Your task to perform on an android device: toggle data saver in the chrome app Image 0: 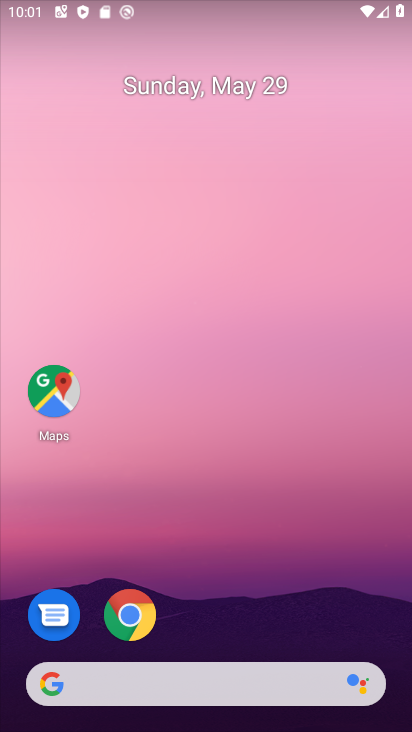
Step 0: click (131, 596)
Your task to perform on an android device: toggle data saver in the chrome app Image 1: 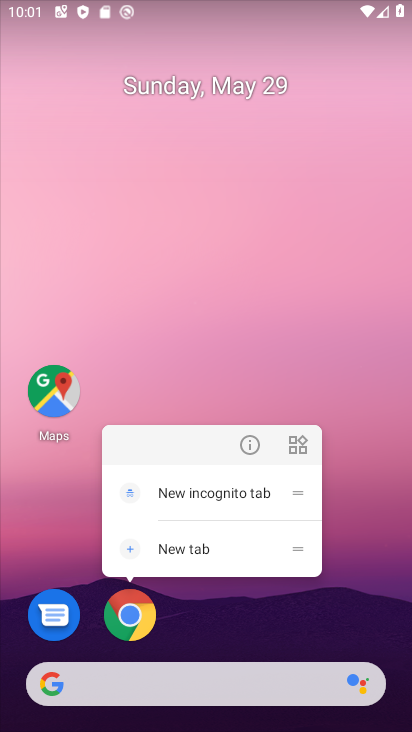
Step 1: click (133, 622)
Your task to perform on an android device: toggle data saver in the chrome app Image 2: 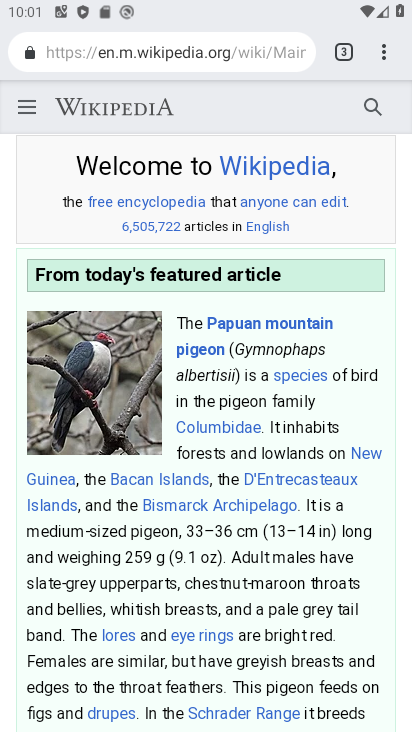
Step 2: click (383, 50)
Your task to perform on an android device: toggle data saver in the chrome app Image 3: 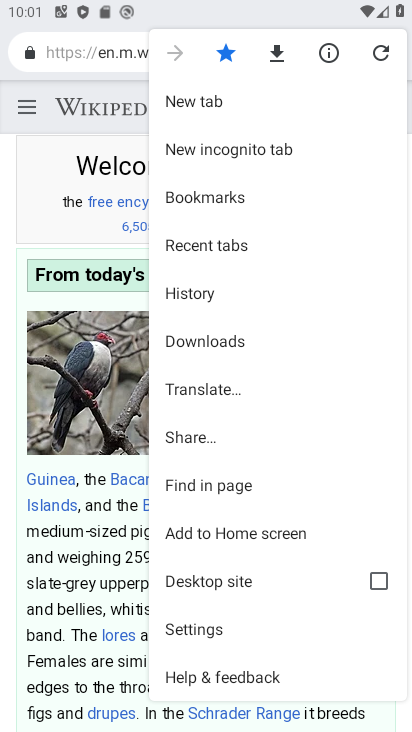
Step 3: click (204, 627)
Your task to perform on an android device: toggle data saver in the chrome app Image 4: 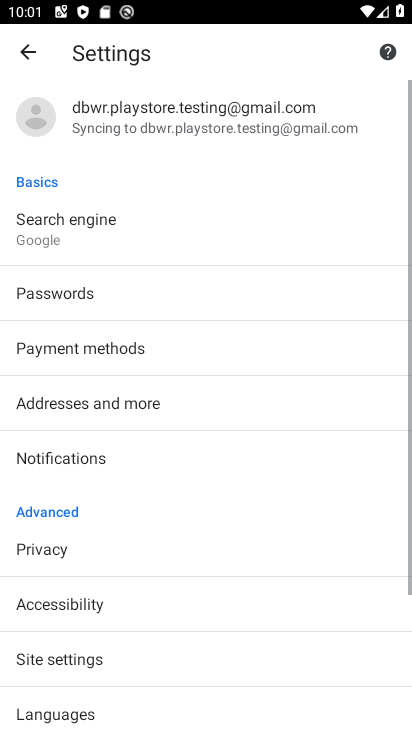
Step 4: drag from (204, 627) to (163, 8)
Your task to perform on an android device: toggle data saver in the chrome app Image 5: 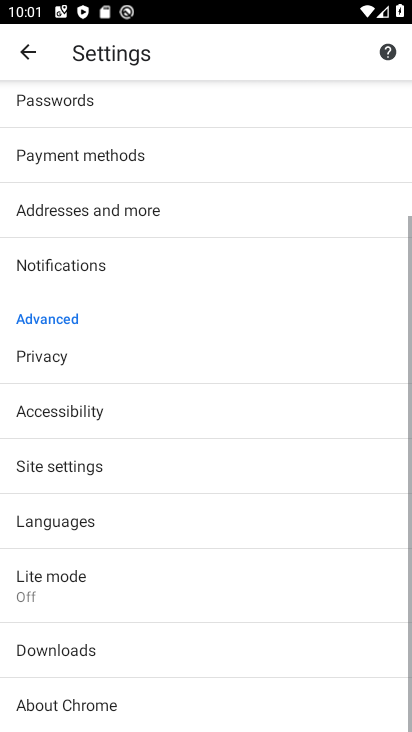
Step 5: click (30, 606)
Your task to perform on an android device: toggle data saver in the chrome app Image 6: 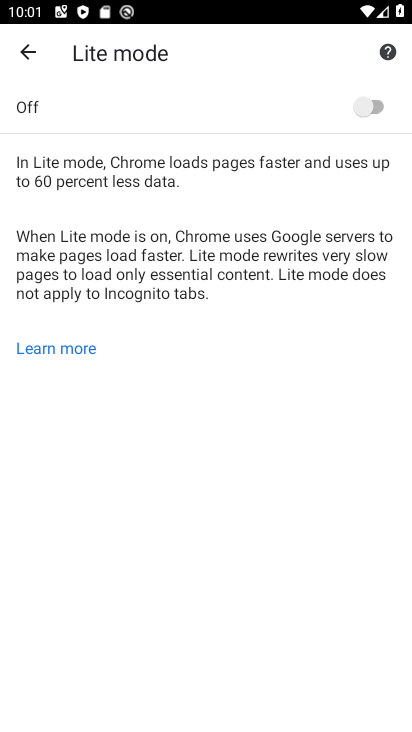
Step 6: click (377, 114)
Your task to perform on an android device: toggle data saver in the chrome app Image 7: 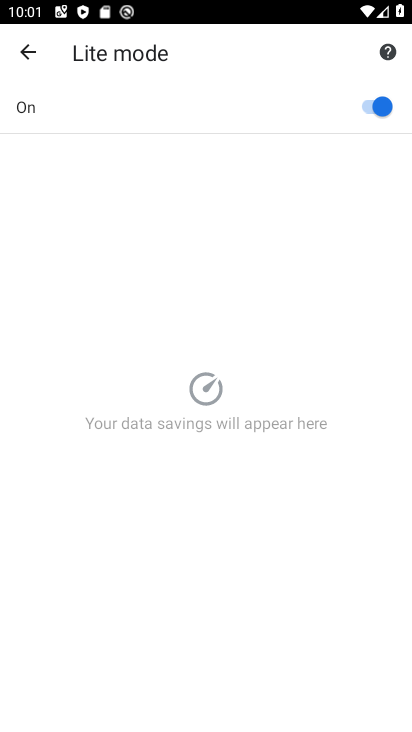
Step 7: task complete